Your task to perform on an android device: What's on my calendar tomorrow? Image 0: 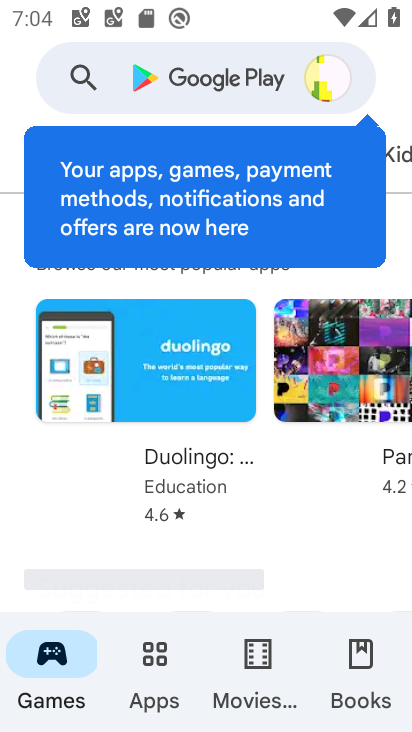
Step 0: press home button
Your task to perform on an android device: What's on my calendar tomorrow? Image 1: 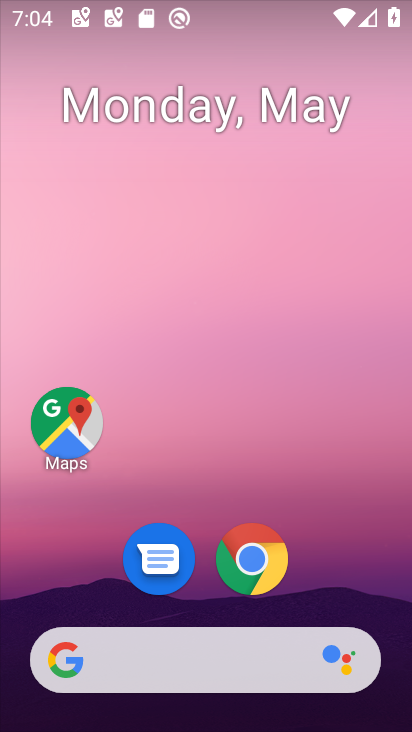
Step 1: drag from (397, 644) to (360, 23)
Your task to perform on an android device: What's on my calendar tomorrow? Image 2: 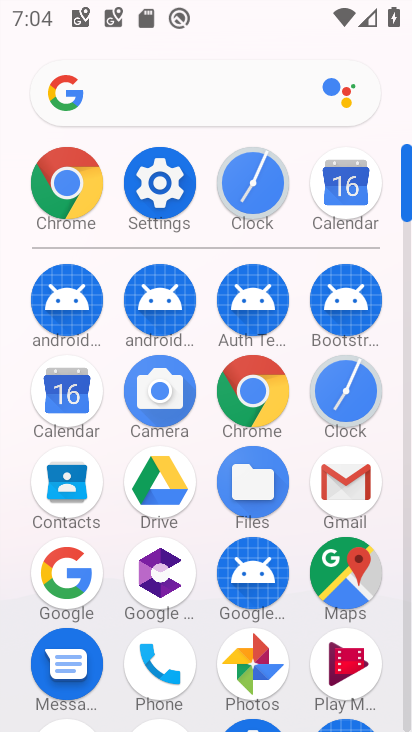
Step 2: click (78, 408)
Your task to perform on an android device: What's on my calendar tomorrow? Image 3: 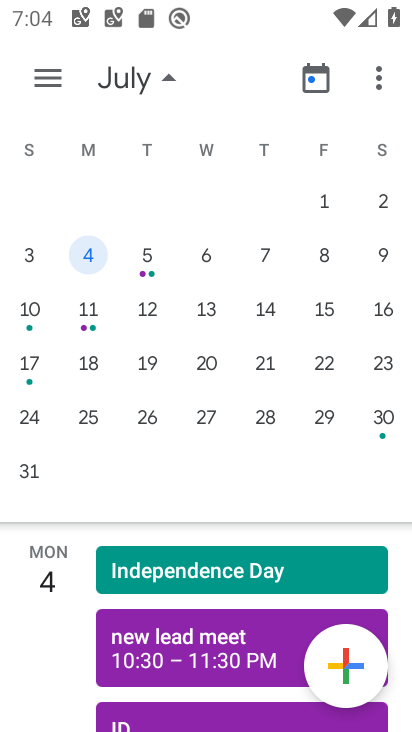
Step 3: drag from (123, 239) to (371, 232)
Your task to perform on an android device: What's on my calendar tomorrow? Image 4: 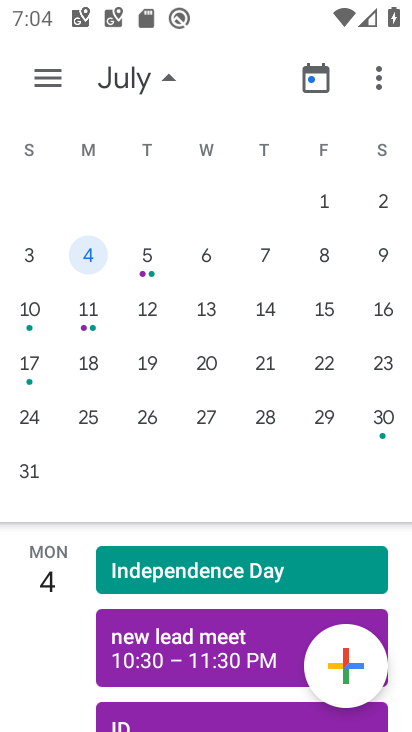
Step 4: drag from (71, 293) to (398, 241)
Your task to perform on an android device: What's on my calendar tomorrow? Image 5: 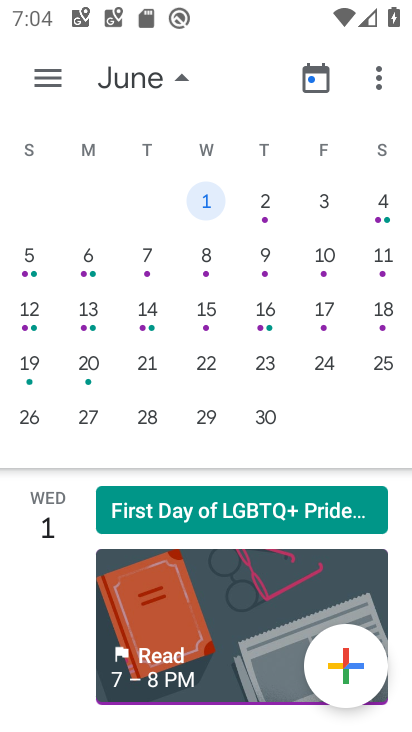
Step 5: drag from (16, 316) to (379, 264)
Your task to perform on an android device: What's on my calendar tomorrow? Image 6: 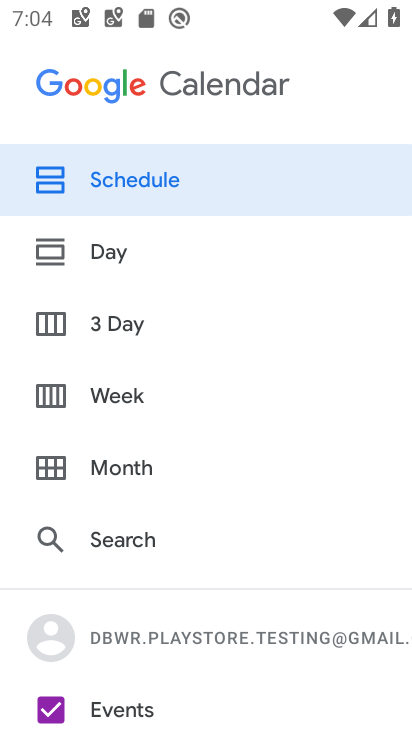
Step 6: press back button
Your task to perform on an android device: What's on my calendar tomorrow? Image 7: 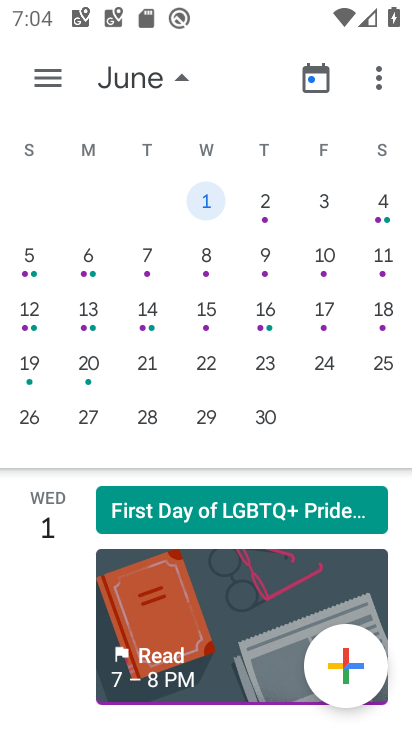
Step 7: drag from (59, 284) to (355, 261)
Your task to perform on an android device: What's on my calendar tomorrow? Image 8: 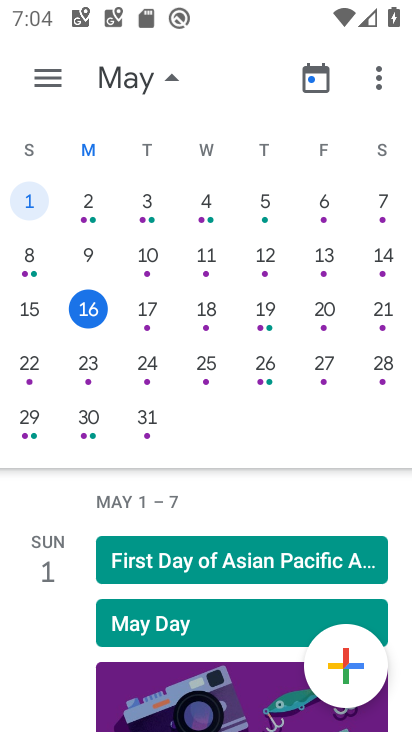
Step 8: click (212, 309)
Your task to perform on an android device: What's on my calendar tomorrow? Image 9: 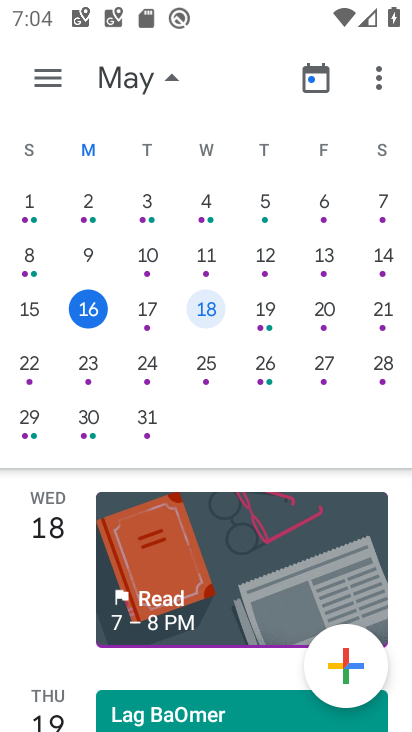
Step 9: click (176, 548)
Your task to perform on an android device: What's on my calendar tomorrow? Image 10: 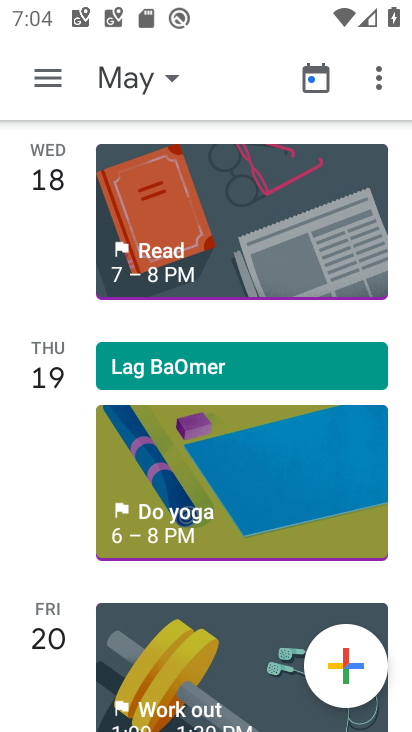
Step 10: task complete